Your task to perform on an android device: Go to Google Image 0: 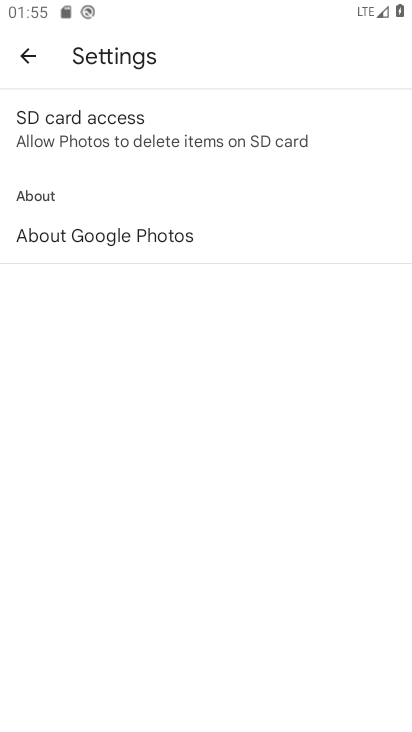
Step 0: press home button
Your task to perform on an android device: Go to Google Image 1: 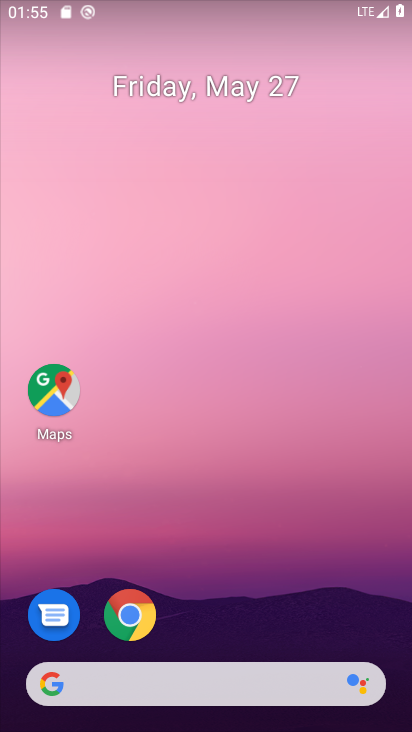
Step 1: drag from (319, 622) to (350, 221)
Your task to perform on an android device: Go to Google Image 2: 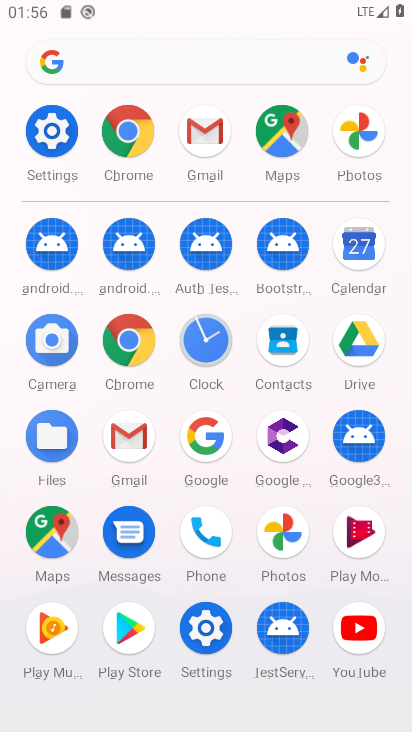
Step 2: click (210, 452)
Your task to perform on an android device: Go to Google Image 3: 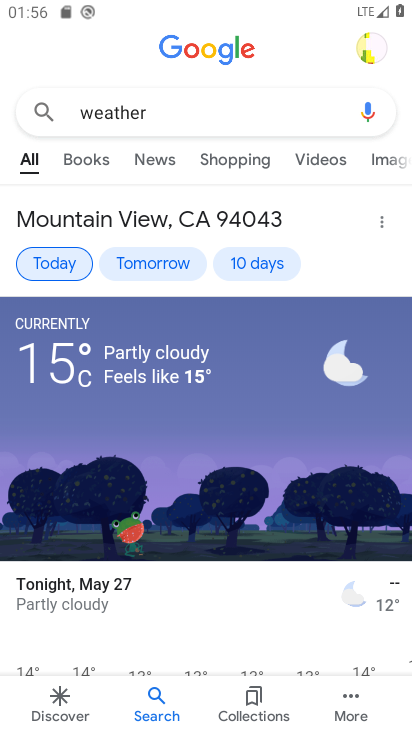
Step 3: task complete